Your task to perform on an android device: Open the web browser Image 0: 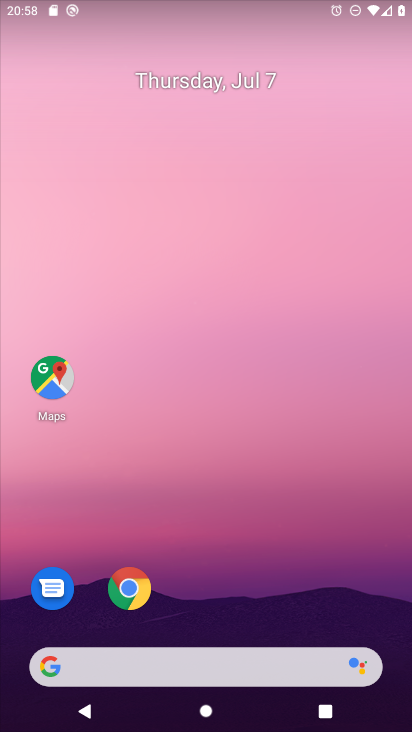
Step 0: drag from (166, 635) to (166, 303)
Your task to perform on an android device: Open the web browser Image 1: 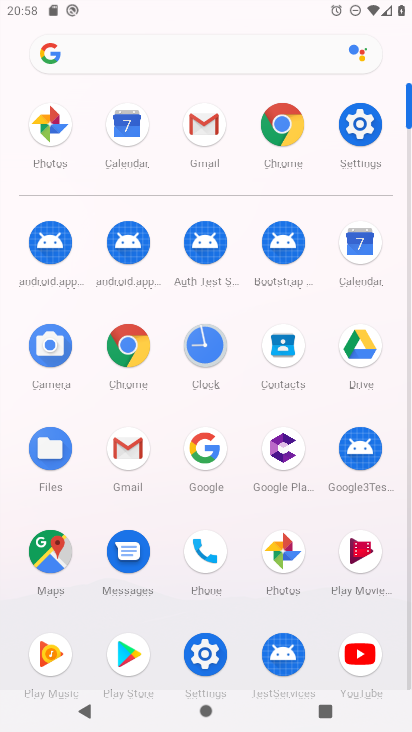
Step 1: click (136, 347)
Your task to perform on an android device: Open the web browser Image 2: 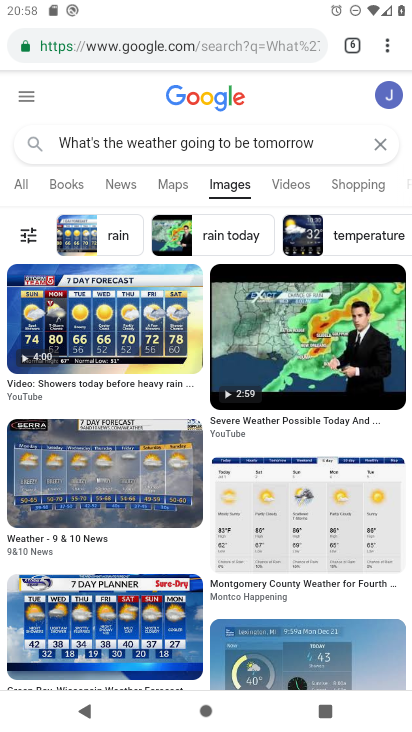
Step 2: task complete